Your task to perform on an android device: turn notification dots off Image 0: 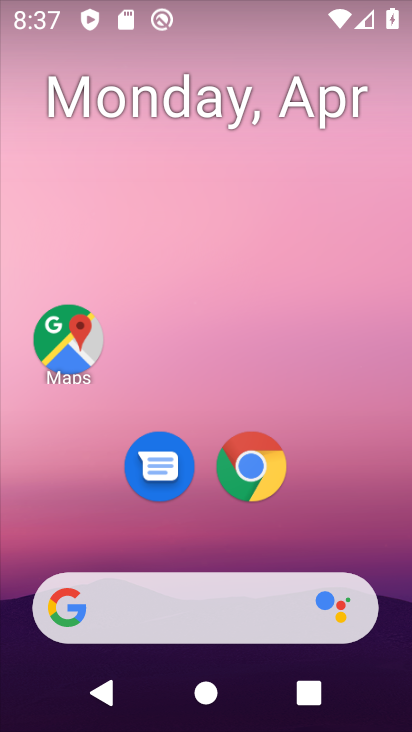
Step 0: drag from (205, 522) to (291, 130)
Your task to perform on an android device: turn notification dots off Image 1: 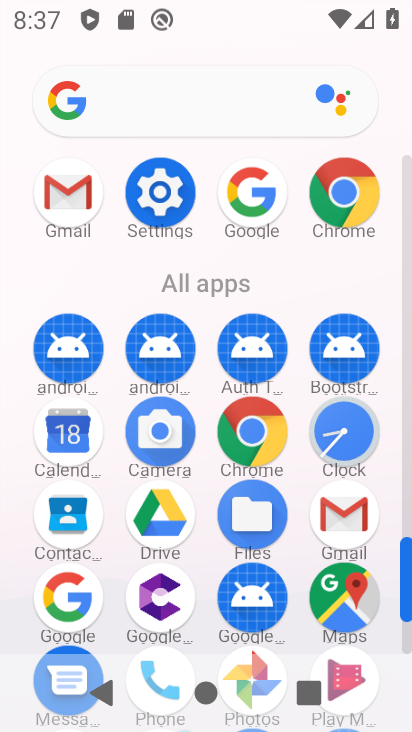
Step 1: click (160, 196)
Your task to perform on an android device: turn notification dots off Image 2: 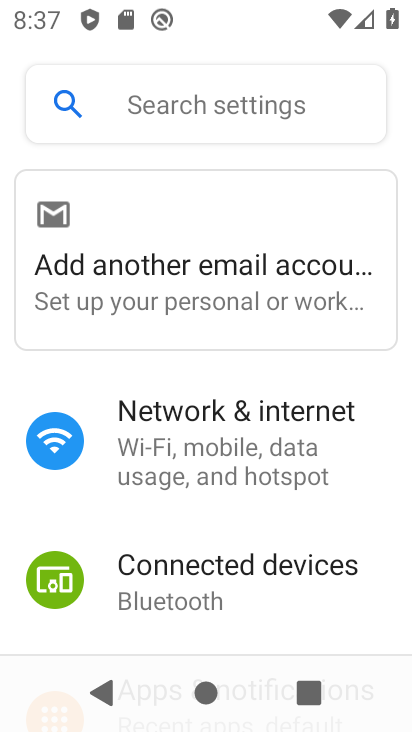
Step 2: drag from (235, 530) to (246, 419)
Your task to perform on an android device: turn notification dots off Image 3: 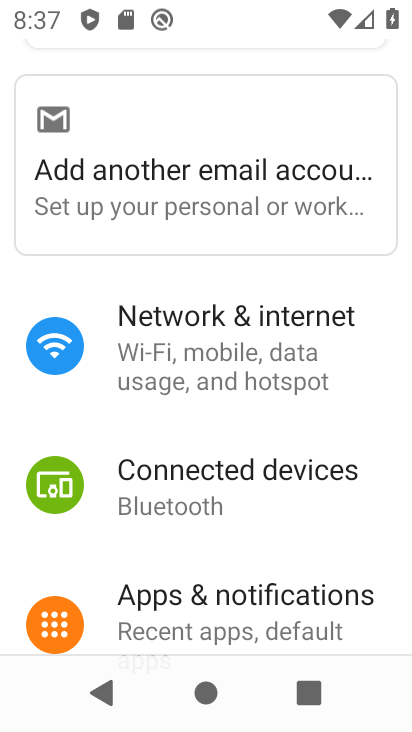
Step 3: drag from (252, 565) to (265, 461)
Your task to perform on an android device: turn notification dots off Image 4: 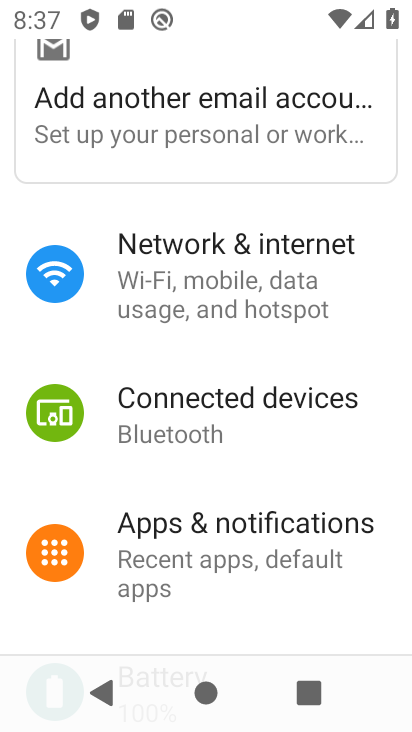
Step 4: click (265, 518)
Your task to perform on an android device: turn notification dots off Image 5: 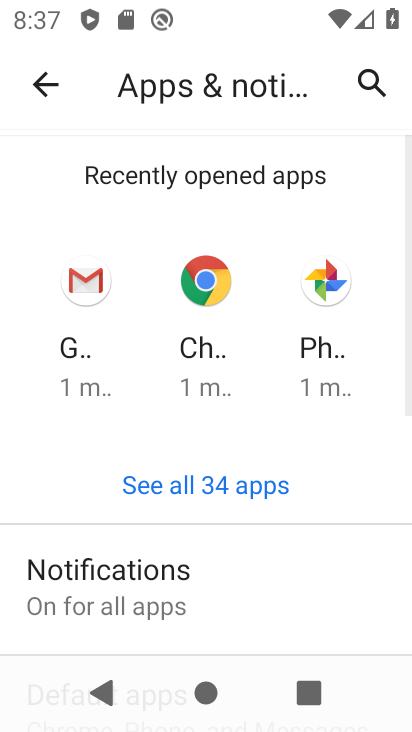
Step 5: drag from (192, 539) to (211, 381)
Your task to perform on an android device: turn notification dots off Image 6: 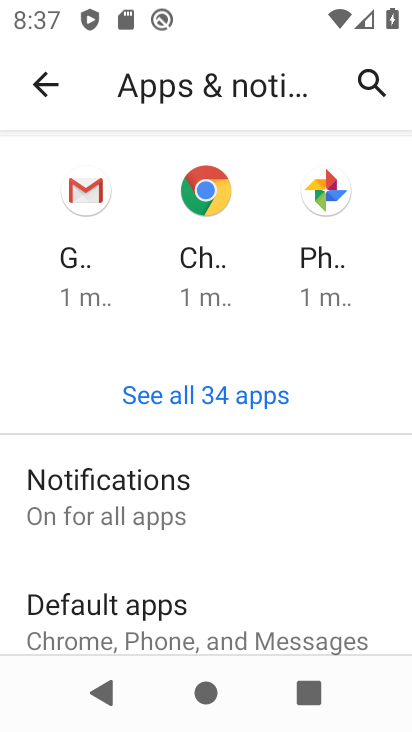
Step 6: click (116, 483)
Your task to perform on an android device: turn notification dots off Image 7: 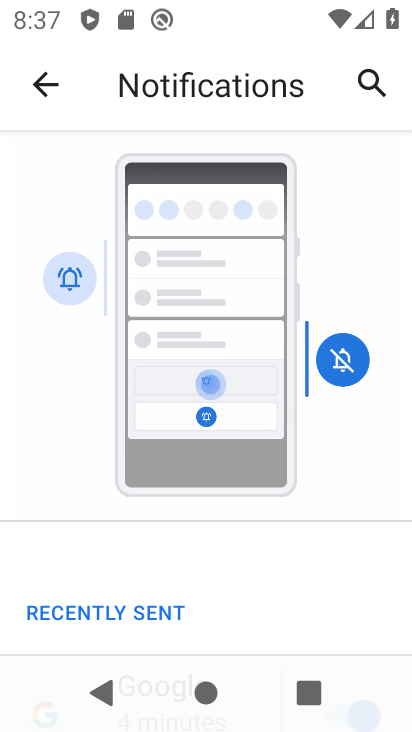
Step 7: drag from (219, 588) to (252, 408)
Your task to perform on an android device: turn notification dots off Image 8: 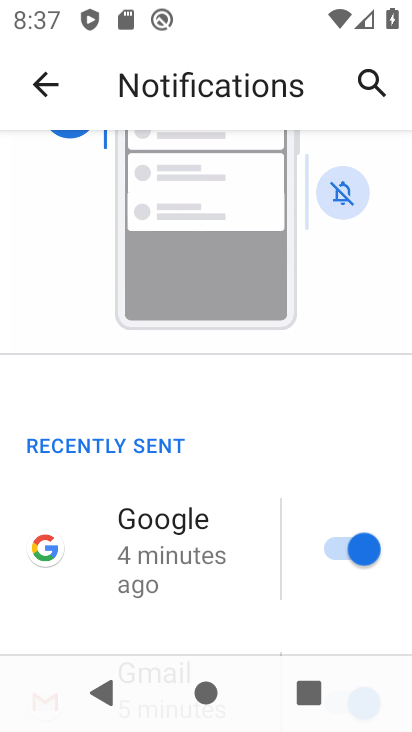
Step 8: drag from (229, 562) to (252, 442)
Your task to perform on an android device: turn notification dots off Image 9: 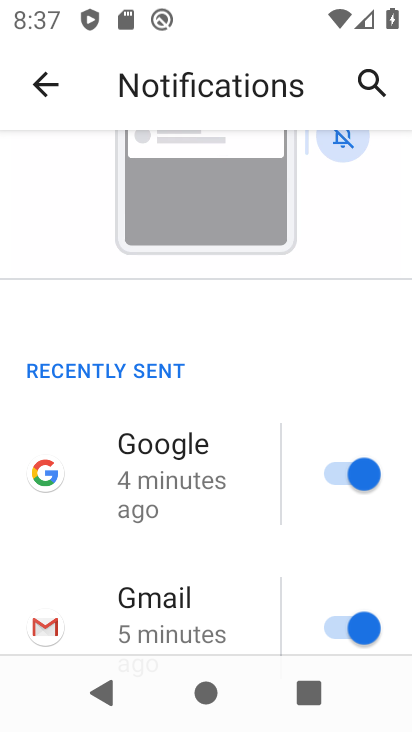
Step 9: drag from (213, 536) to (249, 423)
Your task to perform on an android device: turn notification dots off Image 10: 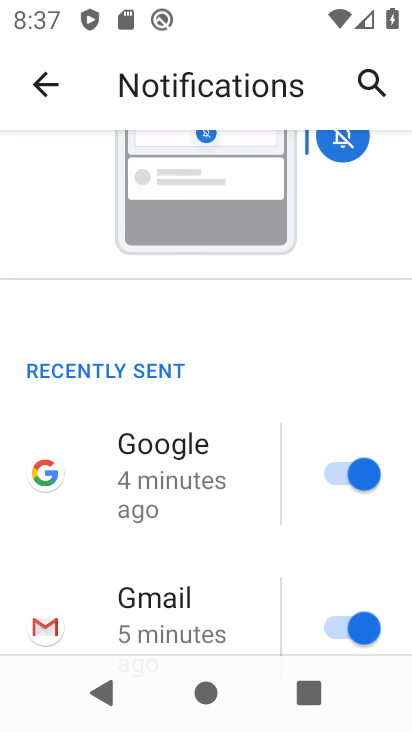
Step 10: drag from (222, 562) to (237, 405)
Your task to perform on an android device: turn notification dots off Image 11: 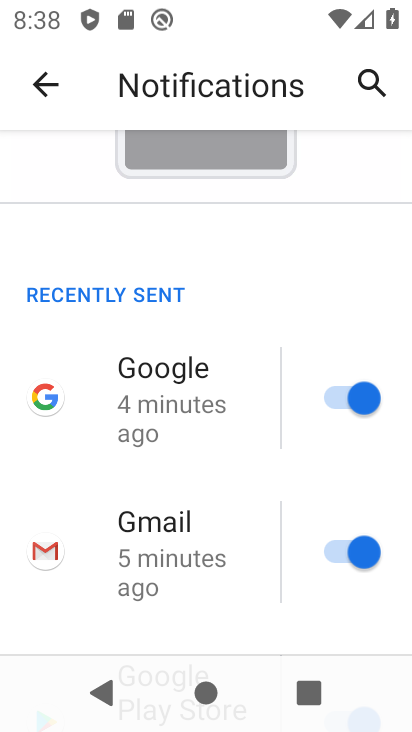
Step 11: drag from (191, 586) to (224, 388)
Your task to perform on an android device: turn notification dots off Image 12: 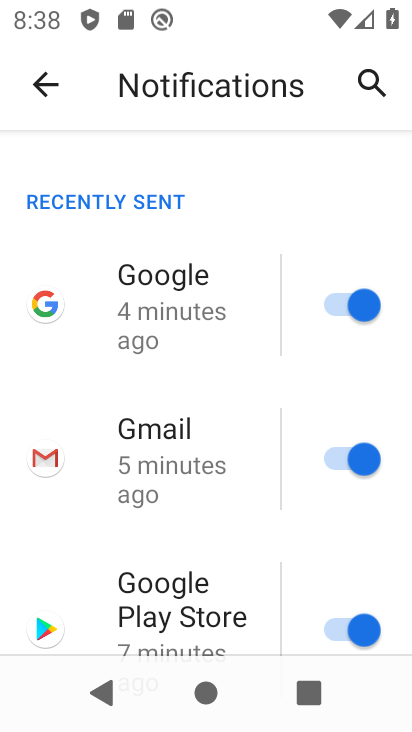
Step 12: drag from (195, 549) to (240, 347)
Your task to perform on an android device: turn notification dots off Image 13: 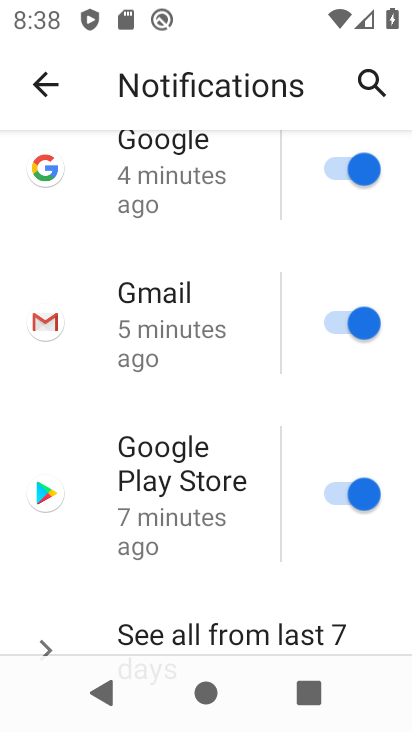
Step 13: drag from (189, 558) to (228, 318)
Your task to perform on an android device: turn notification dots off Image 14: 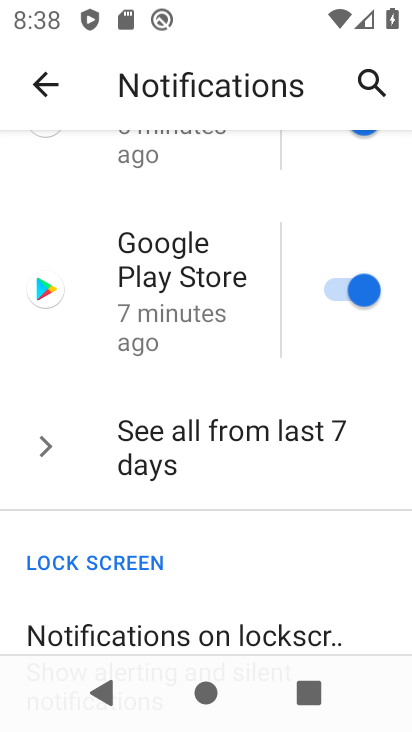
Step 14: drag from (222, 535) to (266, 388)
Your task to perform on an android device: turn notification dots off Image 15: 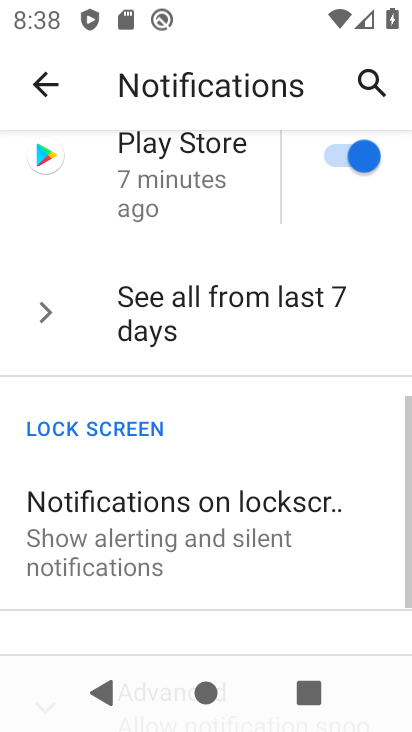
Step 15: drag from (235, 574) to (303, 438)
Your task to perform on an android device: turn notification dots off Image 16: 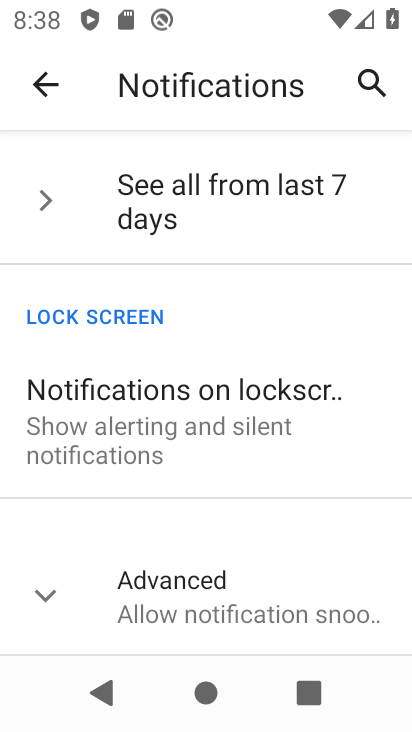
Step 16: click (222, 621)
Your task to perform on an android device: turn notification dots off Image 17: 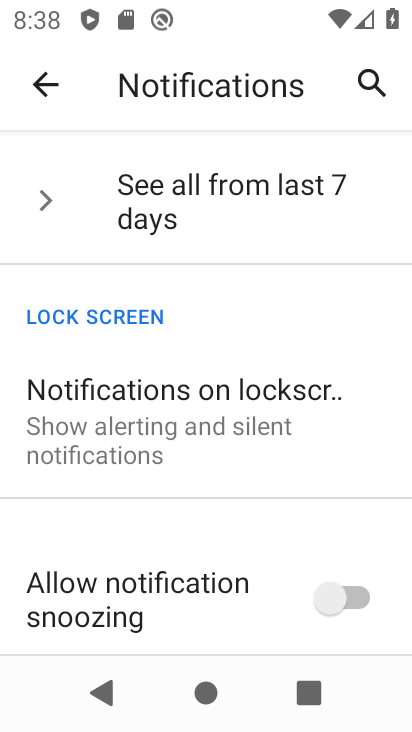
Step 17: drag from (192, 533) to (275, 373)
Your task to perform on an android device: turn notification dots off Image 18: 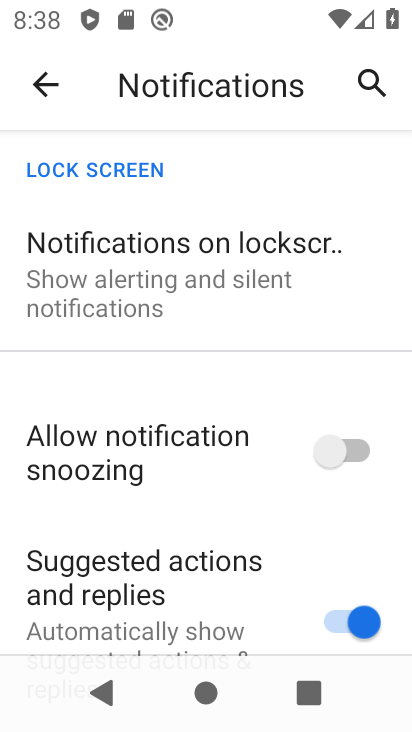
Step 18: drag from (196, 592) to (263, 416)
Your task to perform on an android device: turn notification dots off Image 19: 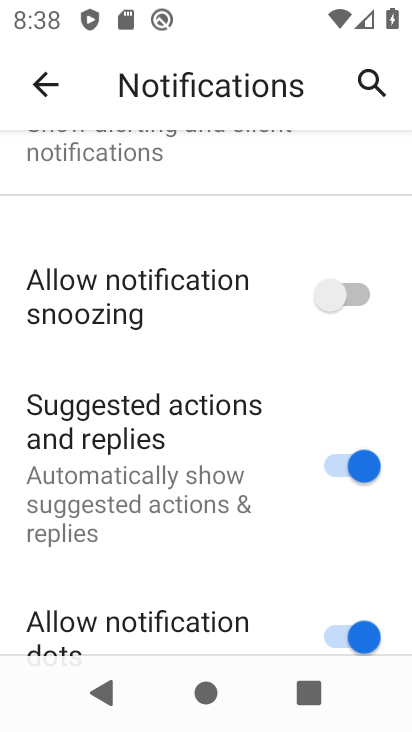
Step 19: drag from (253, 590) to (288, 445)
Your task to perform on an android device: turn notification dots off Image 20: 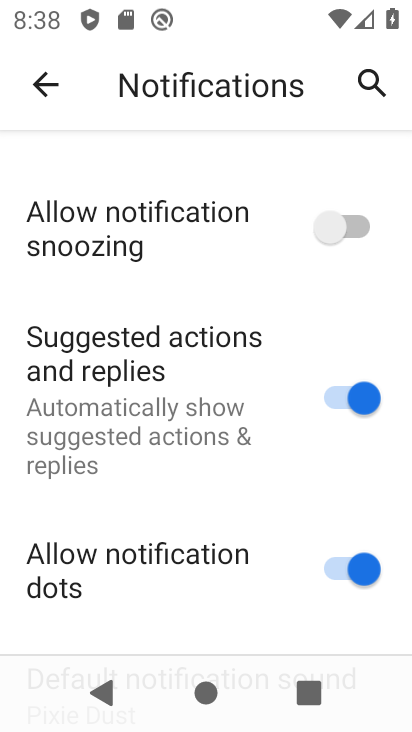
Step 20: click (351, 574)
Your task to perform on an android device: turn notification dots off Image 21: 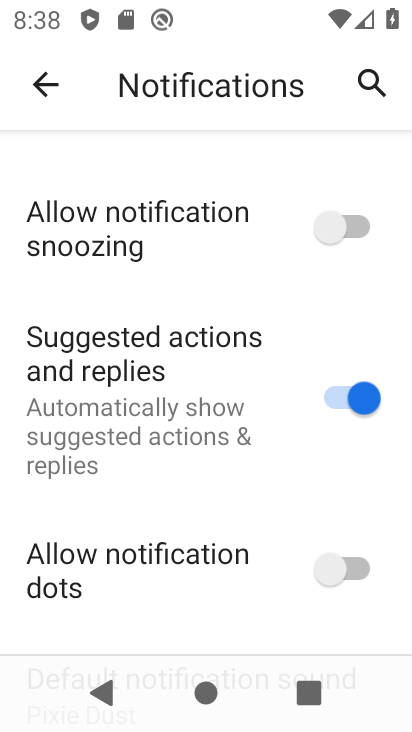
Step 21: task complete